Your task to perform on an android device: find which apps use the phone's location Image 0: 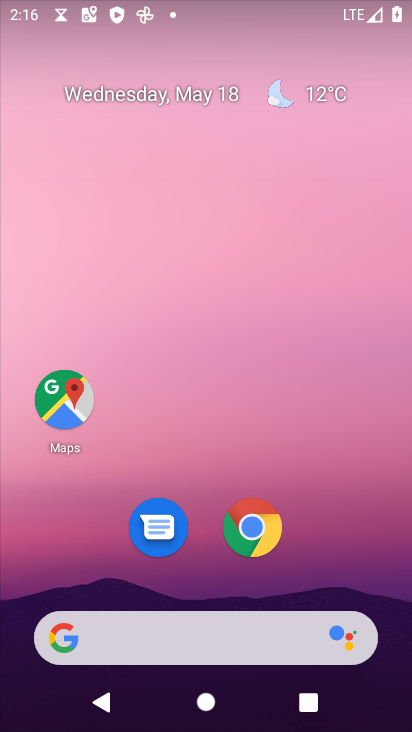
Step 0: drag from (329, 536) to (227, 77)
Your task to perform on an android device: find which apps use the phone's location Image 1: 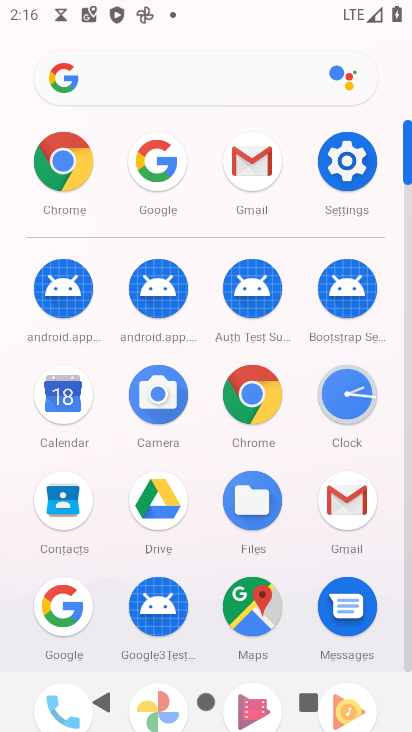
Step 1: click (337, 154)
Your task to perform on an android device: find which apps use the phone's location Image 2: 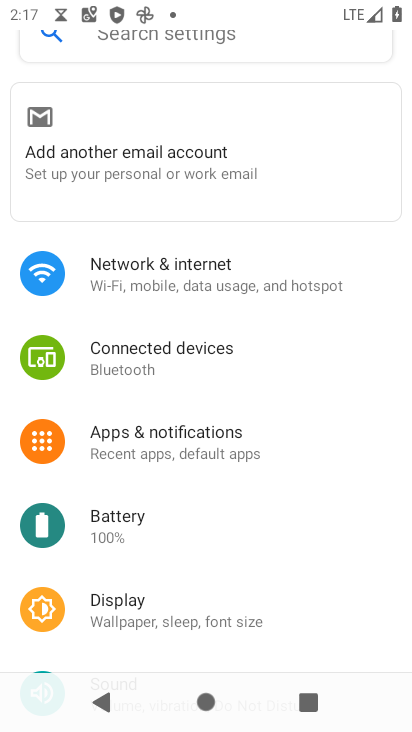
Step 2: drag from (246, 560) to (204, 166)
Your task to perform on an android device: find which apps use the phone's location Image 3: 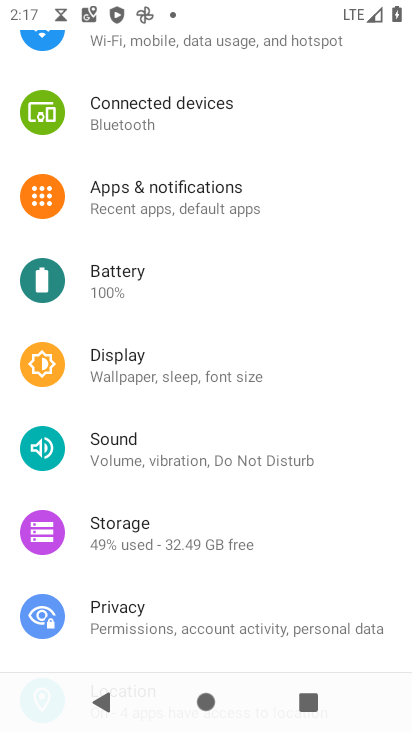
Step 3: drag from (202, 531) to (223, 245)
Your task to perform on an android device: find which apps use the phone's location Image 4: 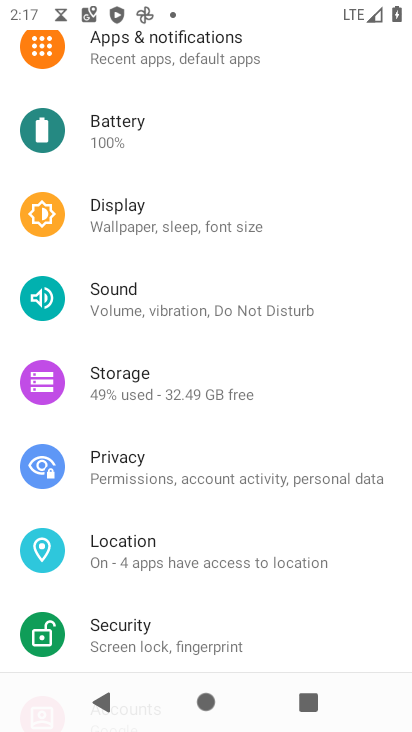
Step 4: click (194, 547)
Your task to perform on an android device: find which apps use the phone's location Image 5: 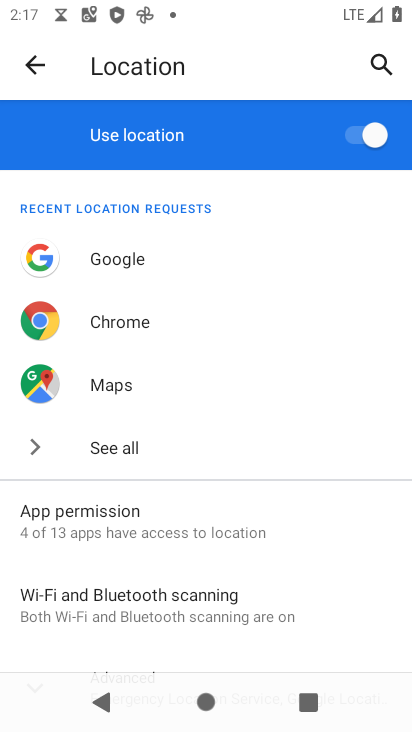
Step 5: click (268, 528)
Your task to perform on an android device: find which apps use the phone's location Image 6: 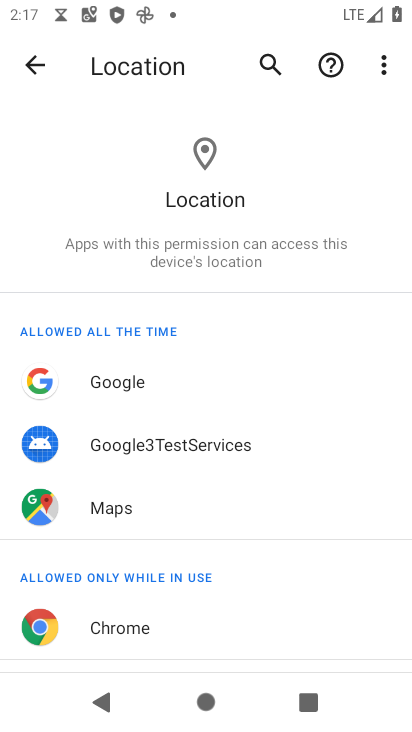
Step 6: task complete